Your task to perform on an android device: set the timer Image 0: 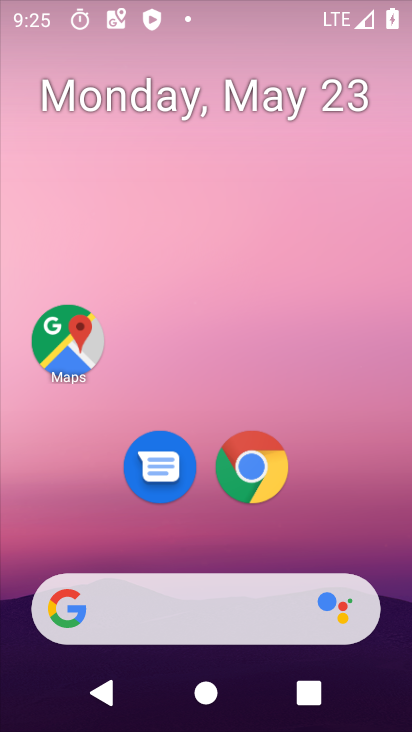
Step 0: drag from (330, 540) to (256, 87)
Your task to perform on an android device: set the timer Image 1: 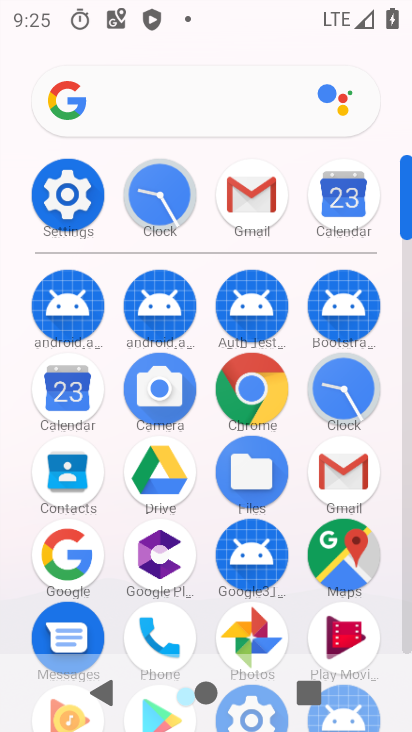
Step 1: click (169, 196)
Your task to perform on an android device: set the timer Image 2: 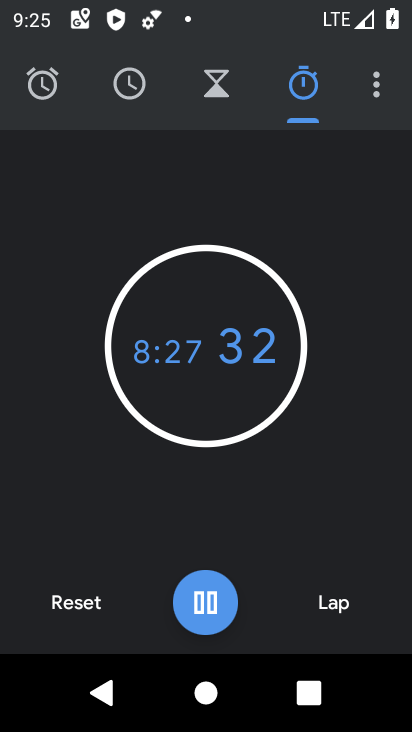
Step 2: click (220, 94)
Your task to perform on an android device: set the timer Image 3: 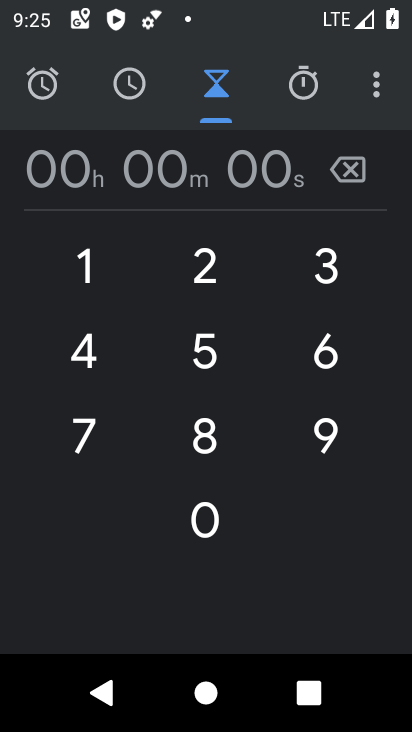
Step 3: click (76, 249)
Your task to perform on an android device: set the timer Image 4: 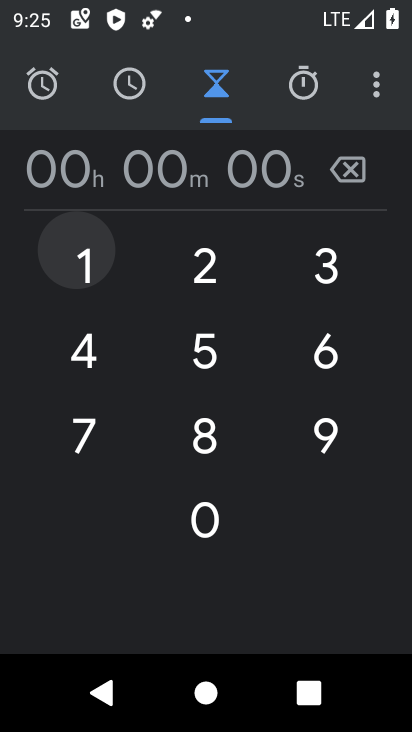
Step 4: click (76, 246)
Your task to perform on an android device: set the timer Image 5: 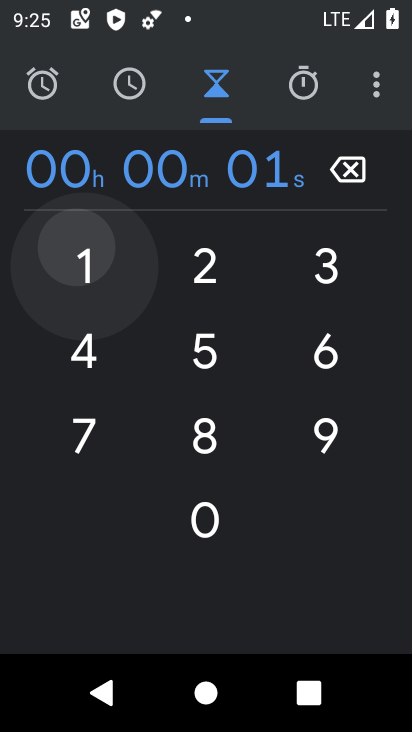
Step 5: click (76, 246)
Your task to perform on an android device: set the timer Image 6: 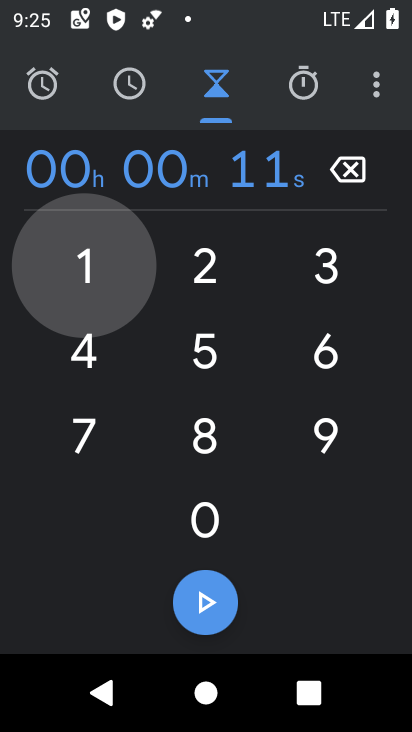
Step 6: click (76, 246)
Your task to perform on an android device: set the timer Image 7: 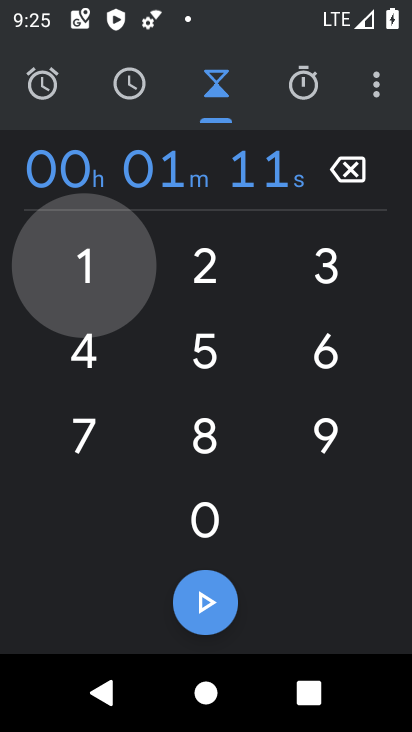
Step 7: click (76, 246)
Your task to perform on an android device: set the timer Image 8: 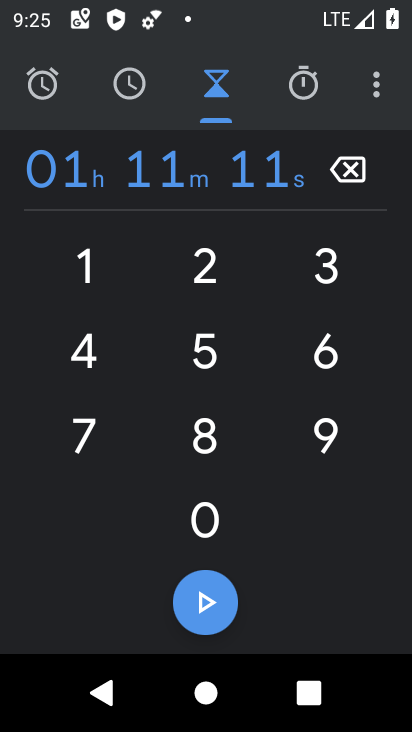
Step 8: click (84, 270)
Your task to perform on an android device: set the timer Image 9: 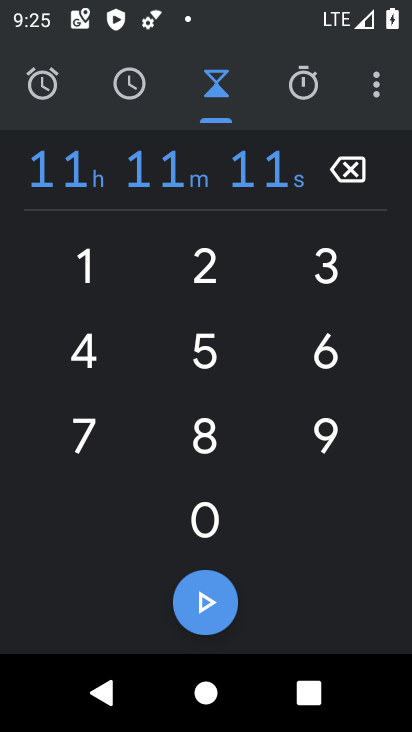
Step 9: click (218, 606)
Your task to perform on an android device: set the timer Image 10: 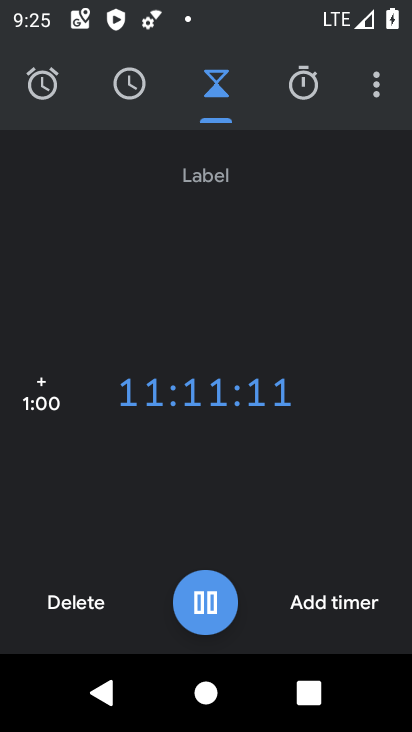
Step 10: task complete